Your task to perform on an android device: set an alarm Image 0: 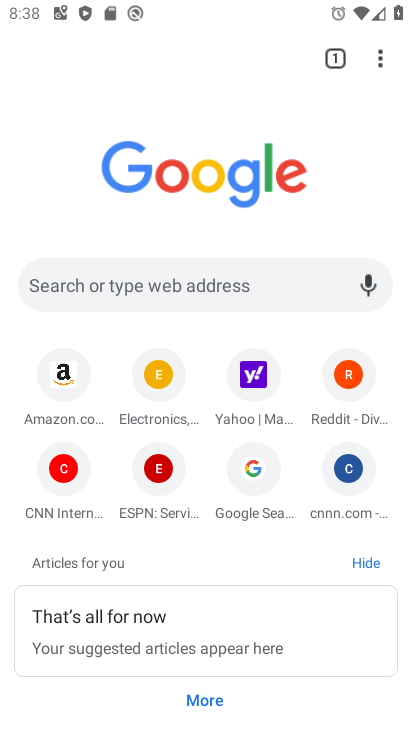
Step 0: press back button
Your task to perform on an android device: set an alarm Image 1: 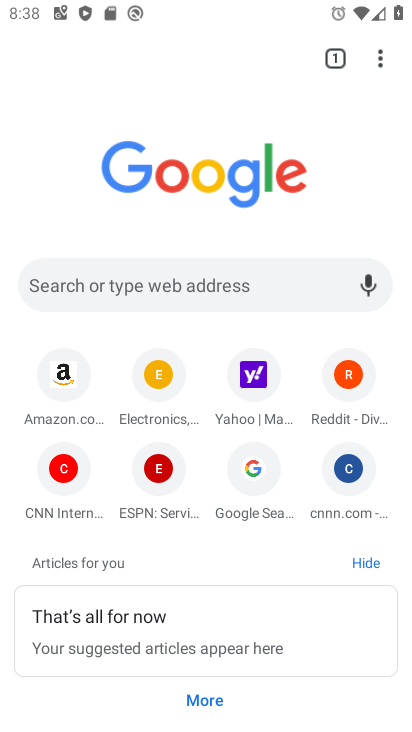
Step 1: press home button
Your task to perform on an android device: set an alarm Image 2: 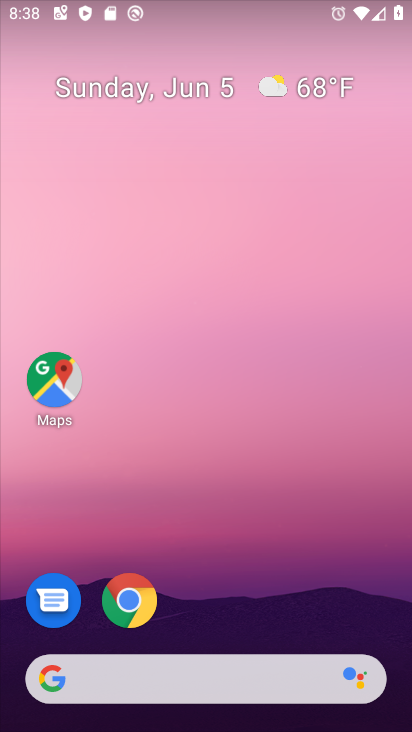
Step 2: drag from (276, 115) to (262, 83)
Your task to perform on an android device: set an alarm Image 3: 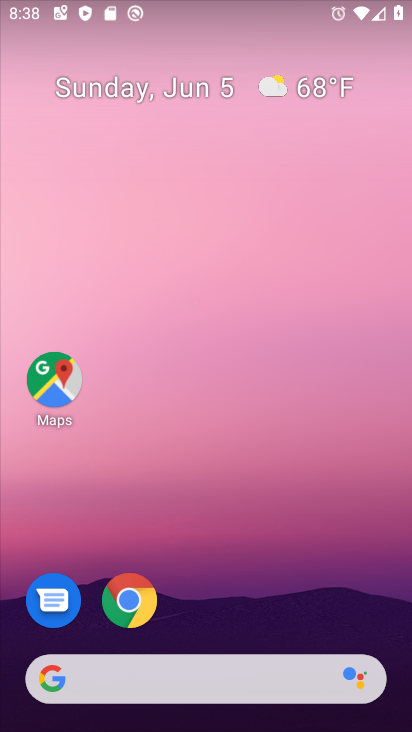
Step 3: drag from (380, 469) to (365, 375)
Your task to perform on an android device: set an alarm Image 4: 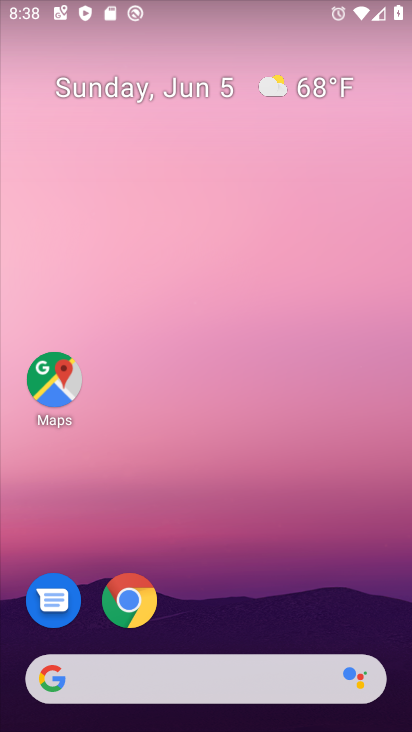
Step 4: drag from (368, 601) to (278, 53)
Your task to perform on an android device: set an alarm Image 5: 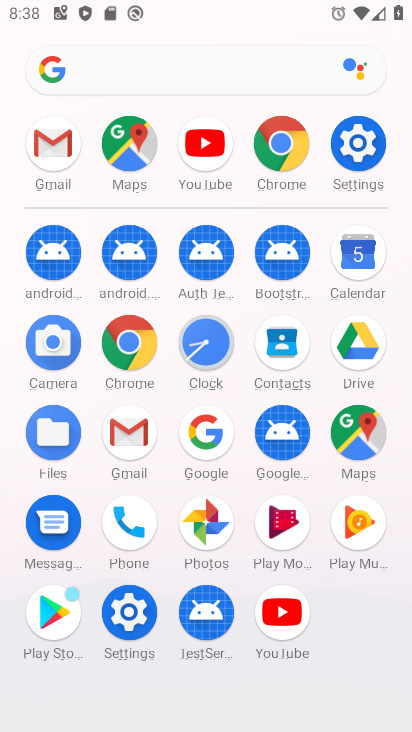
Step 5: click (199, 341)
Your task to perform on an android device: set an alarm Image 6: 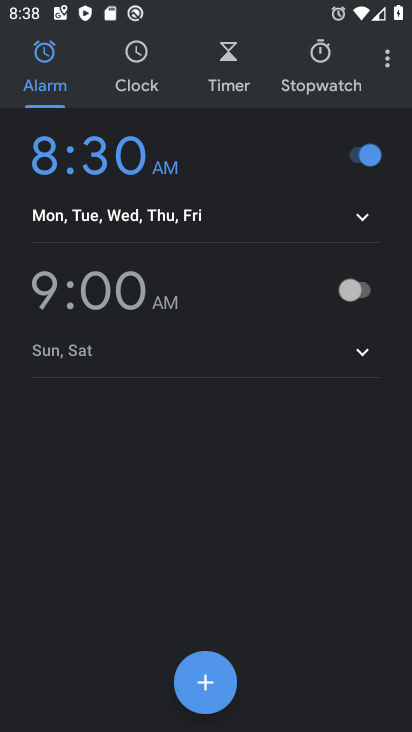
Step 6: click (359, 283)
Your task to perform on an android device: set an alarm Image 7: 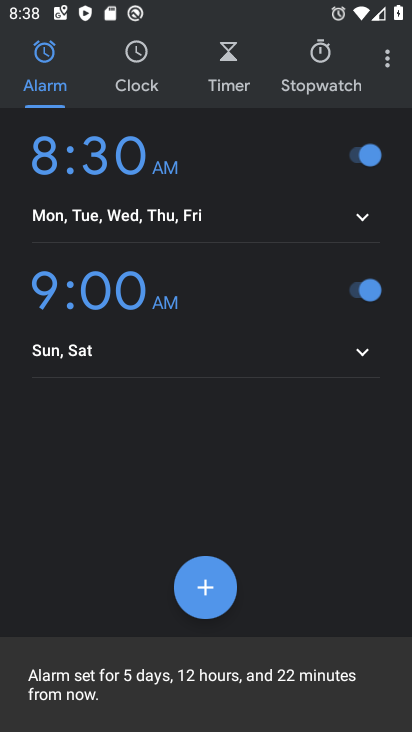
Step 7: task complete